Your task to perform on an android device: toggle airplane mode Image 0: 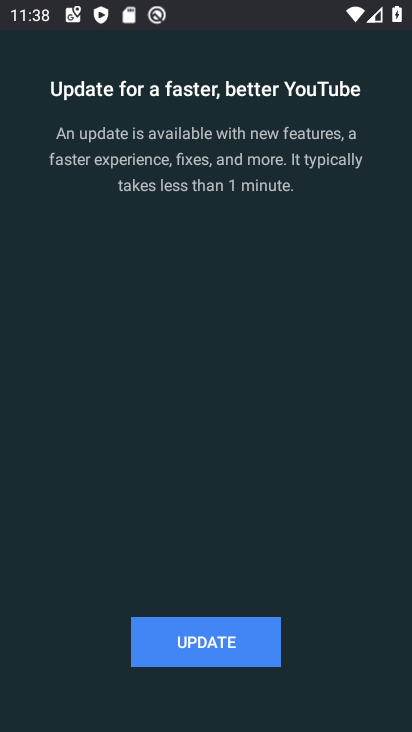
Step 0: press back button
Your task to perform on an android device: toggle airplane mode Image 1: 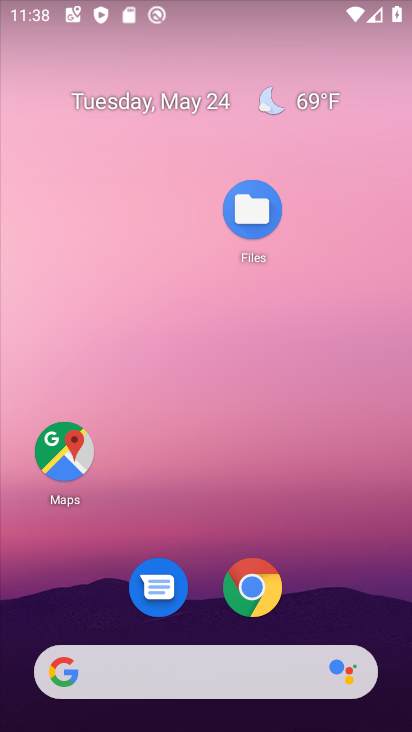
Step 1: drag from (287, 596) to (137, 216)
Your task to perform on an android device: toggle airplane mode Image 2: 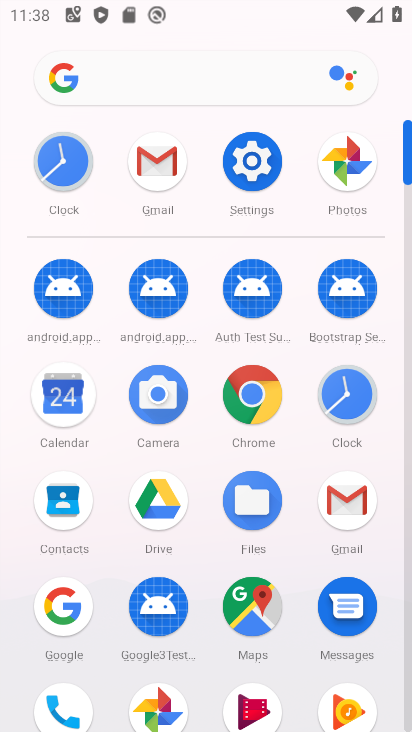
Step 2: click (262, 159)
Your task to perform on an android device: toggle airplane mode Image 3: 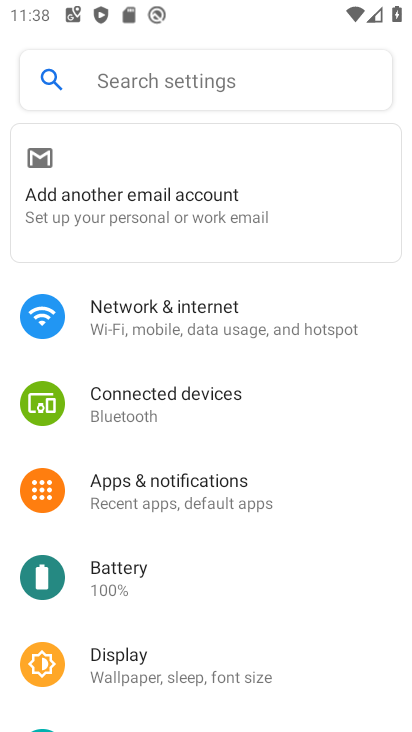
Step 3: click (204, 320)
Your task to perform on an android device: toggle airplane mode Image 4: 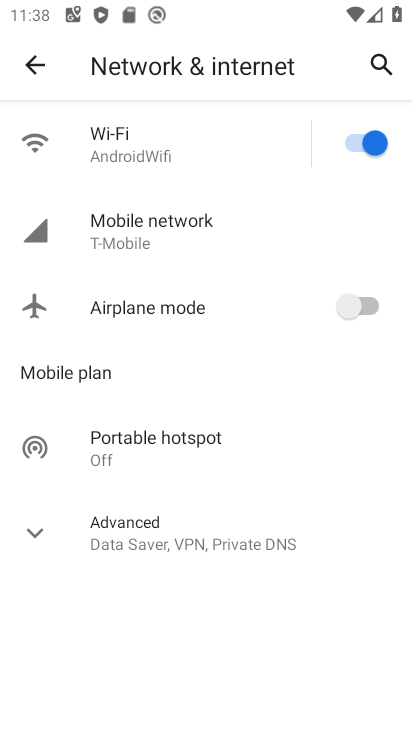
Step 4: click (355, 309)
Your task to perform on an android device: toggle airplane mode Image 5: 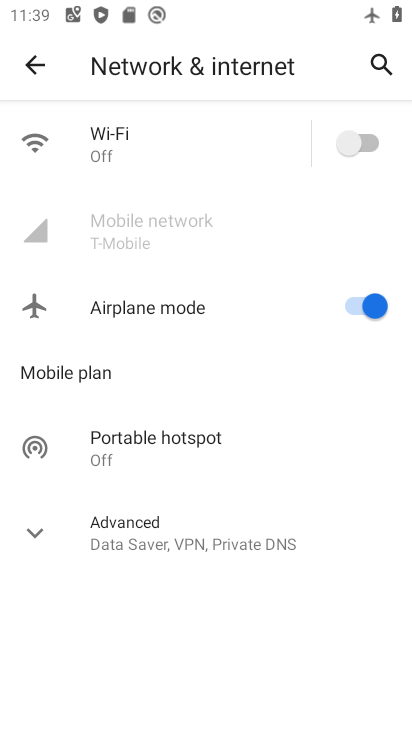
Step 5: task complete